Your task to perform on an android device: turn off notifications in google photos Image 0: 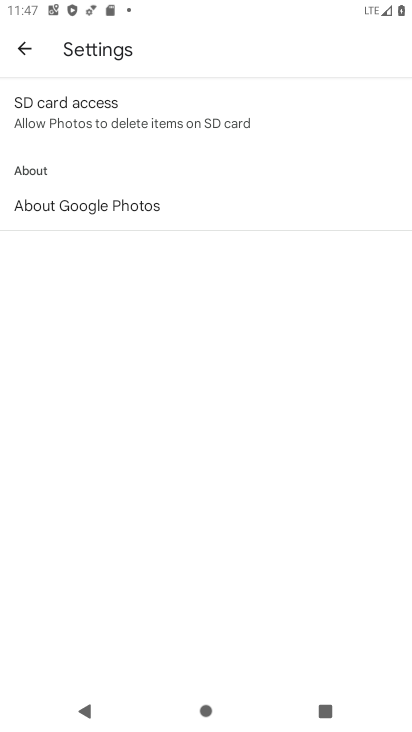
Step 0: press home button
Your task to perform on an android device: turn off notifications in google photos Image 1: 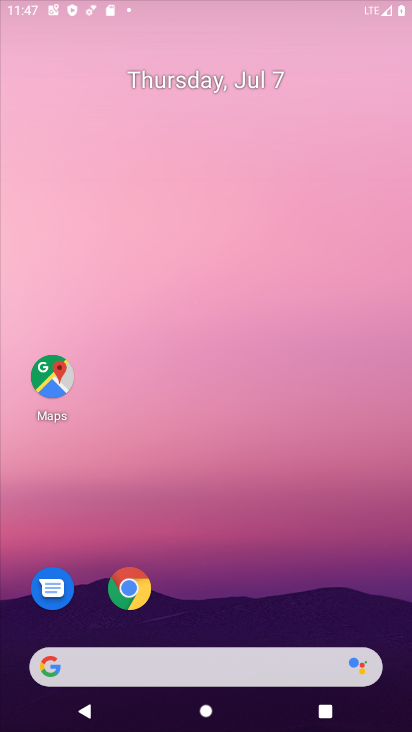
Step 1: drag from (209, 609) to (283, 72)
Your task to perform on an android device: turn off notifications in google photos Image 2: 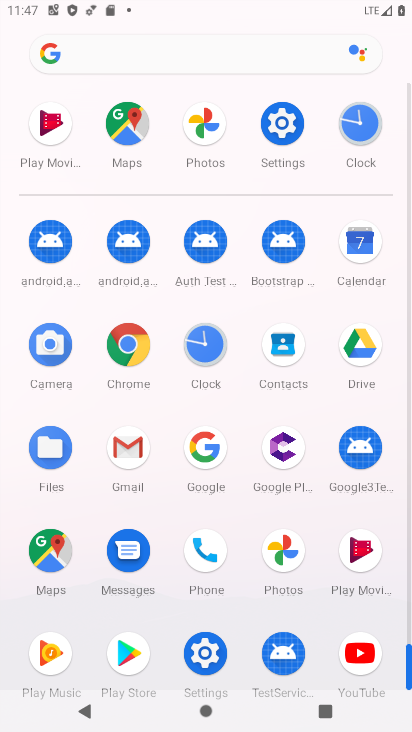
Step 2: click (285, 544)
Your task to perform on an android device: turn off notifications in google photos Image 3: 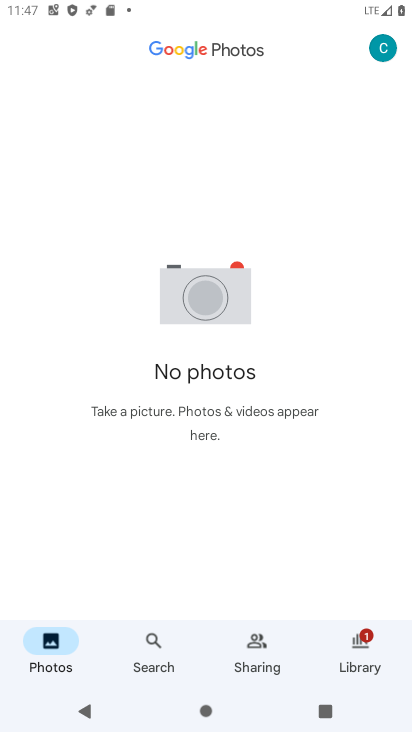
Step 3: click (380, 48)
Your task to perform on an android device: turn off notifications in google photos Image 4: 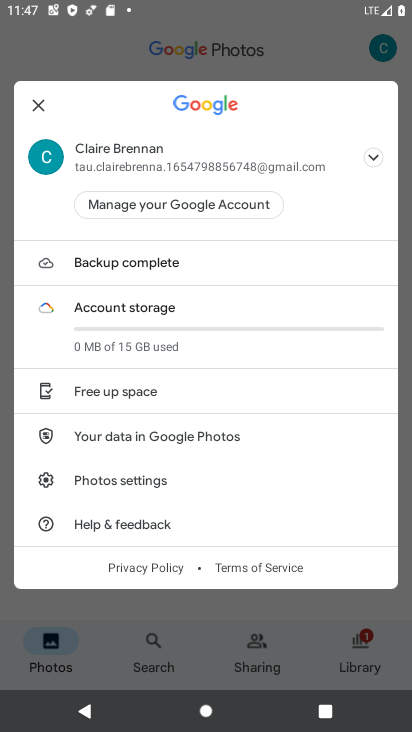
Step 4: click (115, 479)
Your task to perform on an android device: turn off notifications in google photos Image 5: 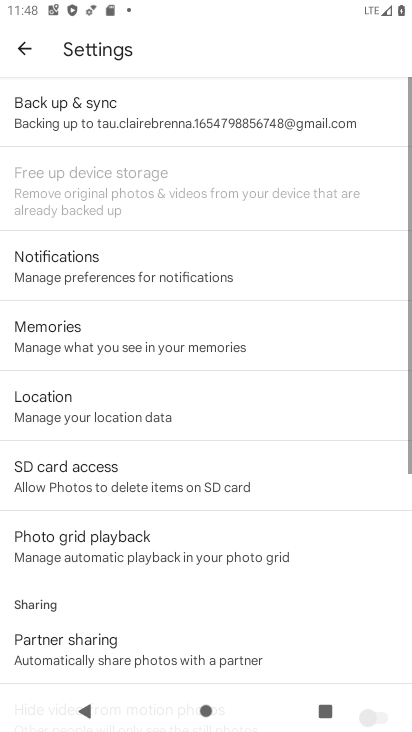
Step 5: drag from (128, 618) to (184, 131)
Your task to perform on an android device: turn off notifications in google photos Image 6: 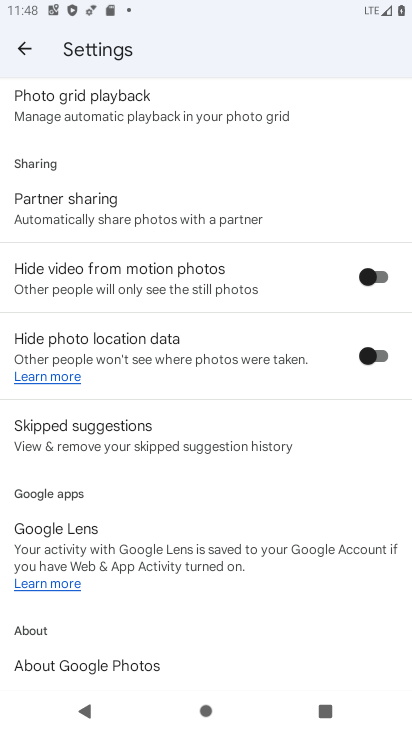
Step 6: drag from (178, 160) to (186, 591)
Your task to perform on an android device: turn off notifications in google photos Image 7: 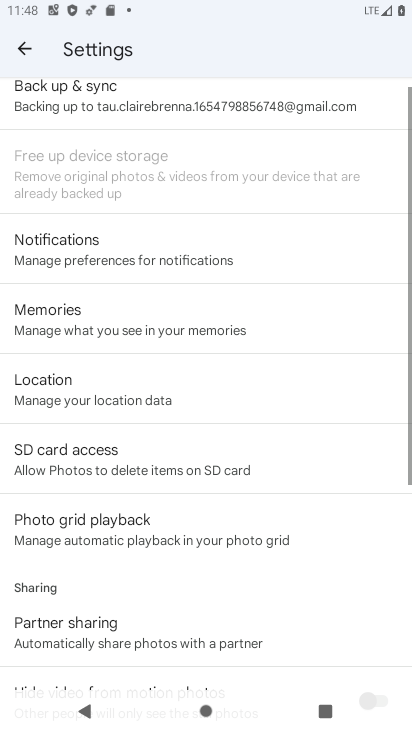
Step 7: click (85, 270)
Your task to perform on an android device: turn off notifications in google photos Image 8: 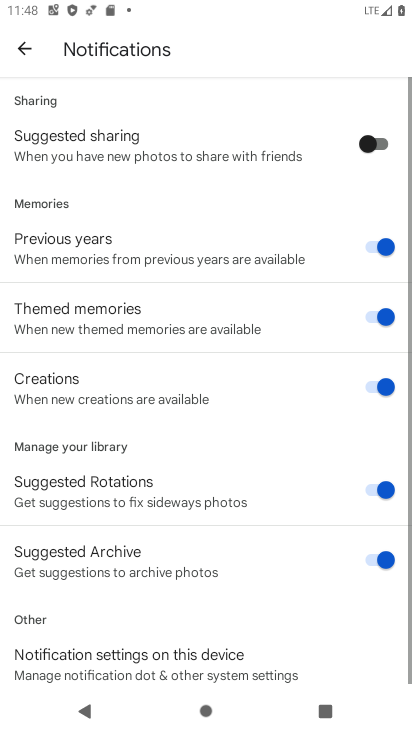
Step 8: drag from (234, 543) to (245, 188)
Your task to perform on an android device: turn off notifications in google photos Image 9: 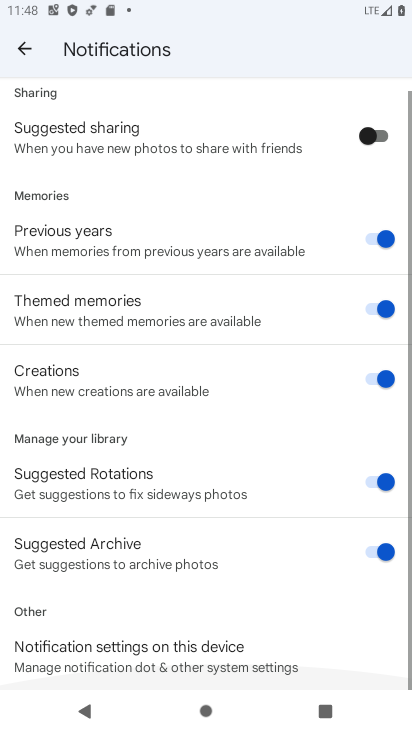
Step 9: click (177, 657)
Your task to perform on an android device: turn off notifications in google photos Image 10: 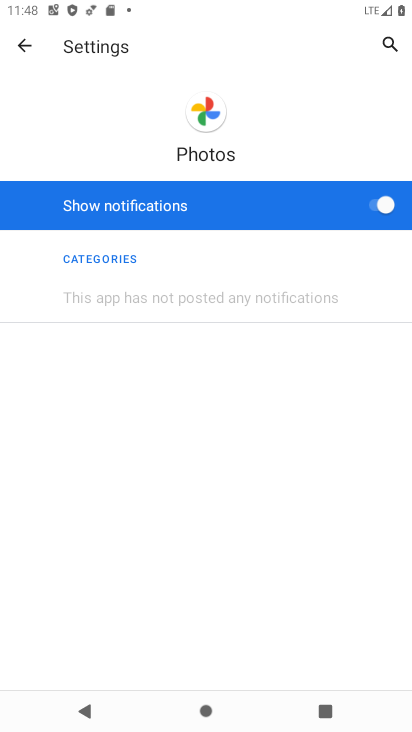
Step 10: click (380, 205)
Your task to perform on an android device: turn off notifications in google photos Image 11: 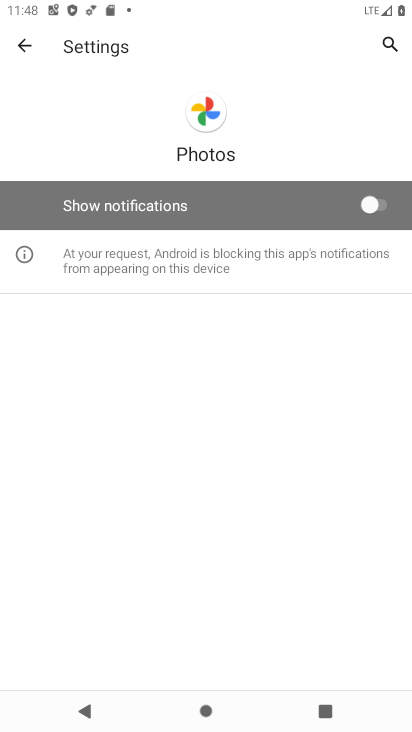
Step 11: task complete